Your task to perform on an android device: toggle location history Image 0: 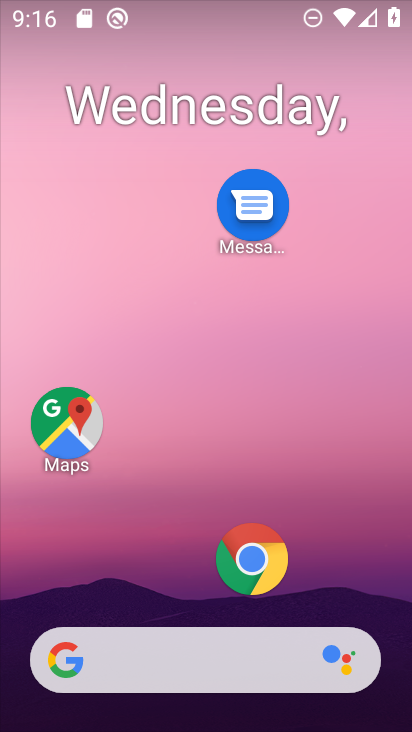
Step 0: drag from (163, 661) to (205, 180)
Your task to perform on an android device: toggle location history Image 1: 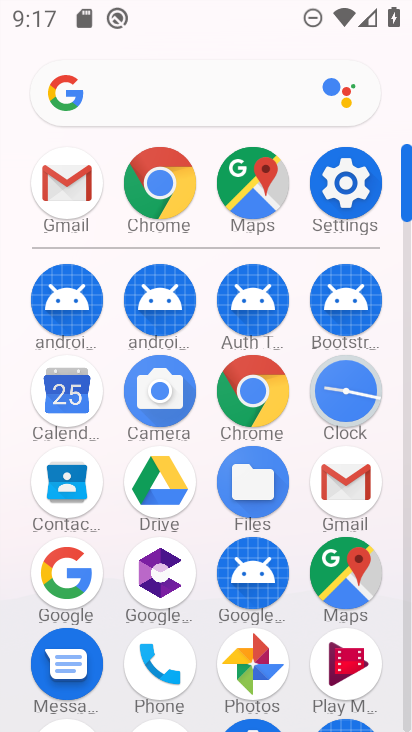
Step 1: click (355, 210)
Your task to perform on an android device: toggle location history Image 2: 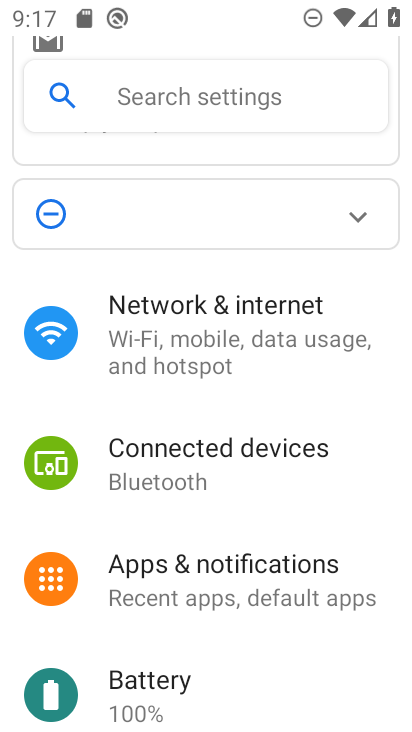
Step 2: drag from (217, 578) to (258, 185)
Your task to perform on an android device: toggle location history Image 3: 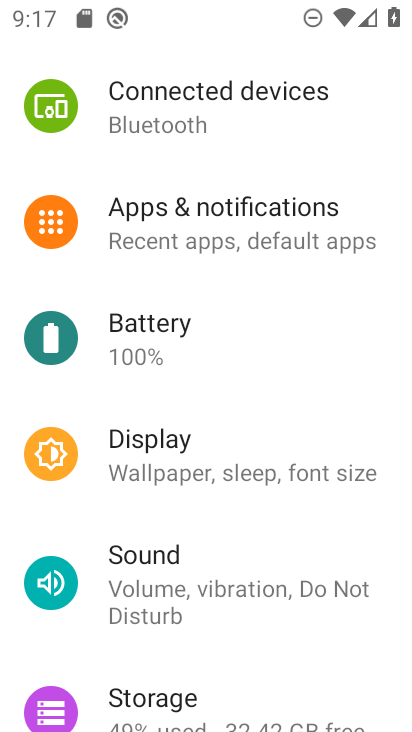
Step 3: drag from (248, 524) to (251, 145)
Your task to perform on an android device: toggle location history Image 4: 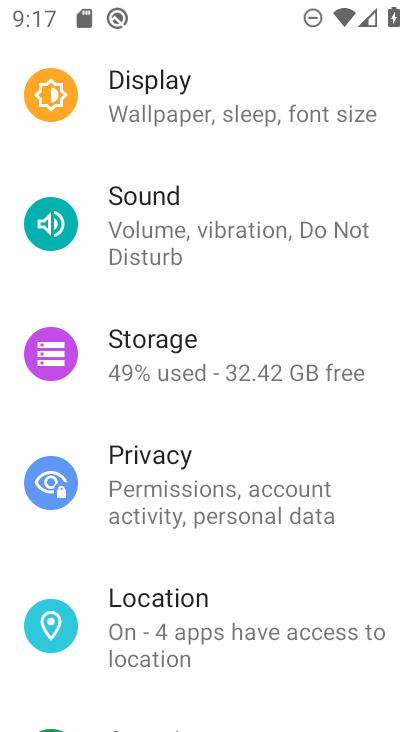
Step 4: click (247, 623)
Your task to perform on an android device: toggle location history Image 5: 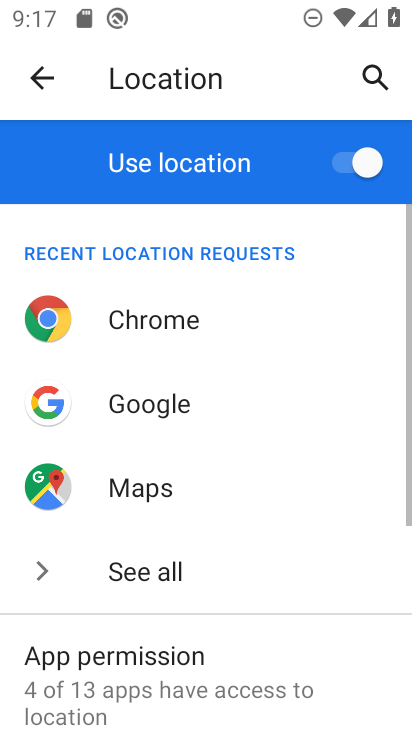
Step 5: drag from (252, 568) to (257, 174)
Your task to perform on an android device: toggle location history Image 6: 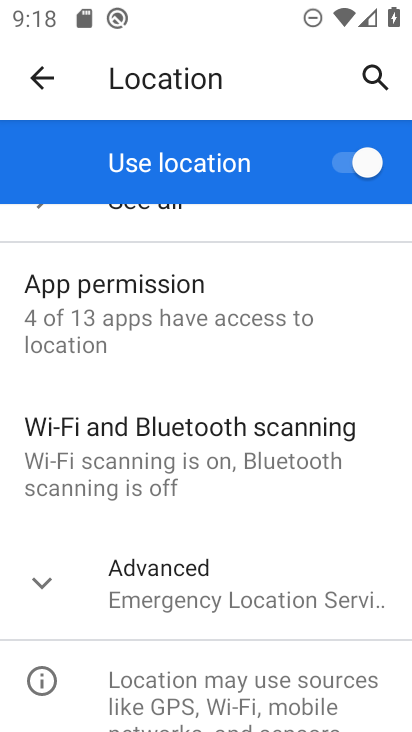
Step 6: click (226, 598)
Your task to perform on an android device: toggle location history Image 7: 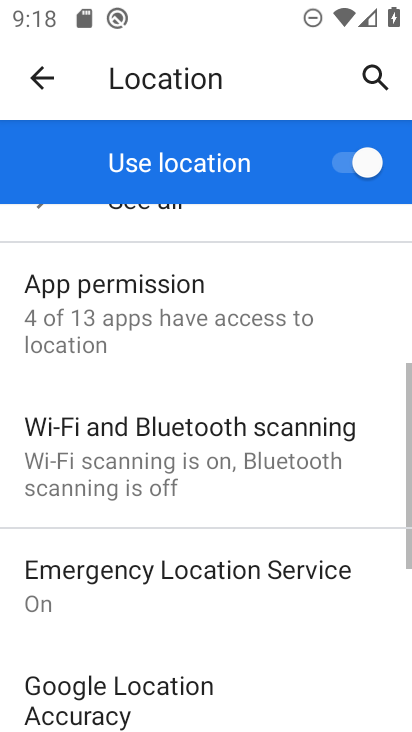
Step 7: drag from (227, 579) to (278, 202)
Your task to perform on an android device: toggle location history Image 8: 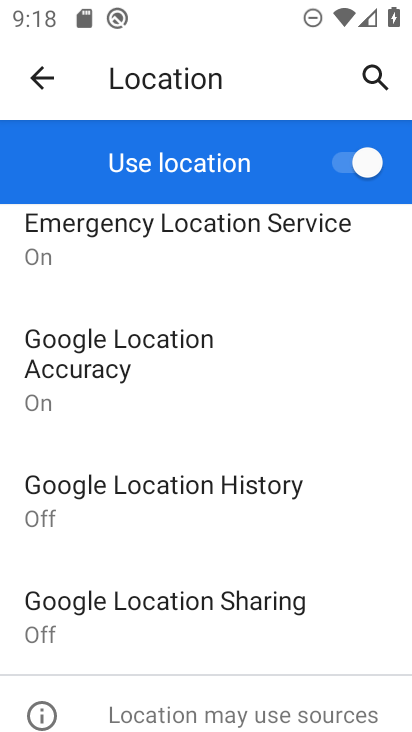
Step 8: click (267, 508)
Your task to perform on an android device: toggle location history Image 9: 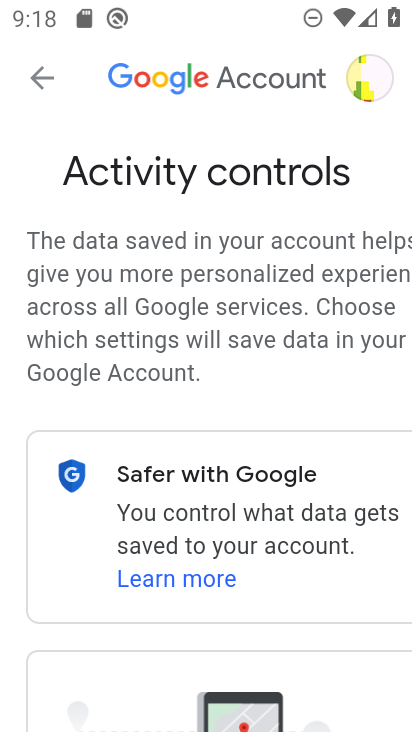
Step 9: drag from (296, 579) to (172, 125)
Your task to perform on an android device: toggle location history Image 10: 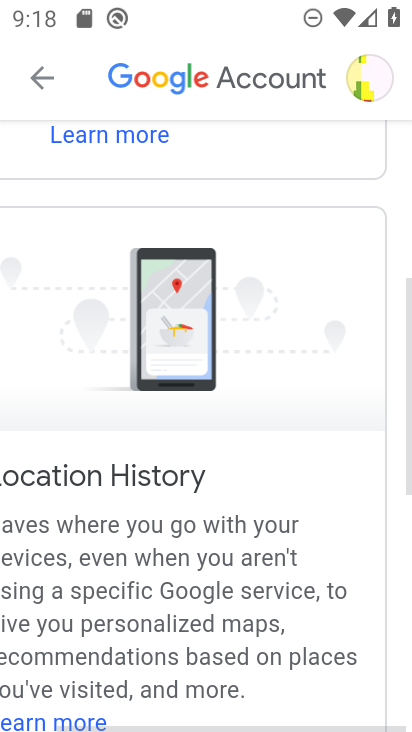
Step 10: drag from (251, 578) to (234, 60)
Your task to perform on an android device: toggle location history Image 11: 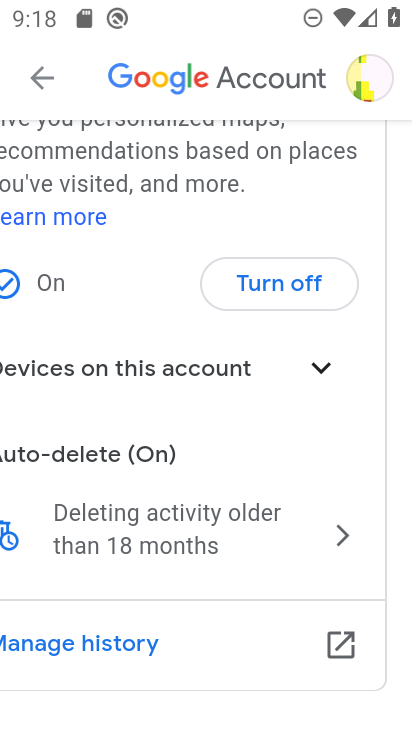
Step 11: drag from (180, 541) to (223, 422)
Your task to perform on an android device: toggle location history Image 12: 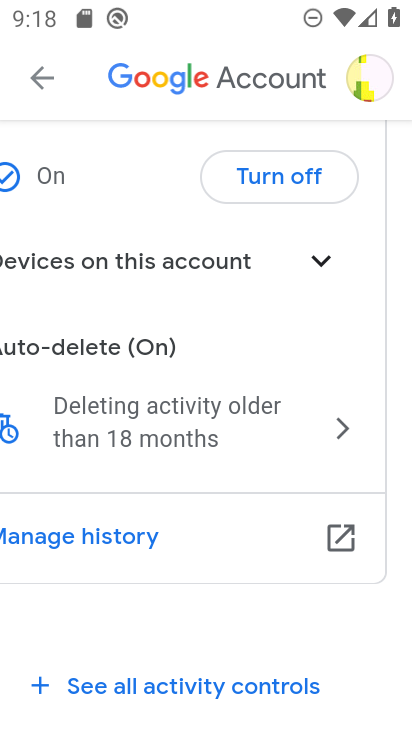
Step 12: click (259, 414)
Your task to perform on an android device: toggle location history Image 13: 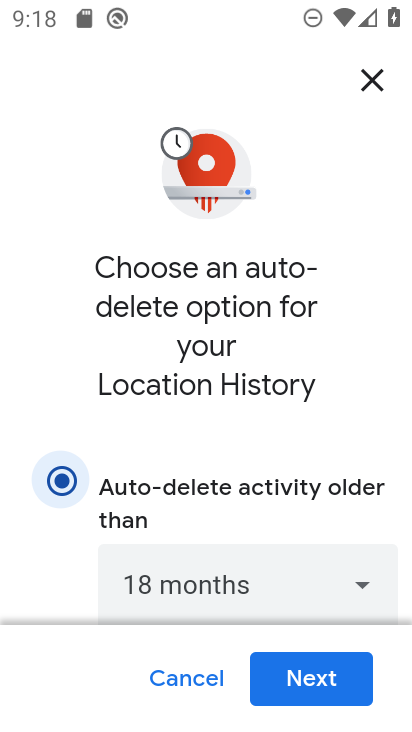
Step 13: click (330, 686)
Your task to perform on an android device: toggle location history Image 14: 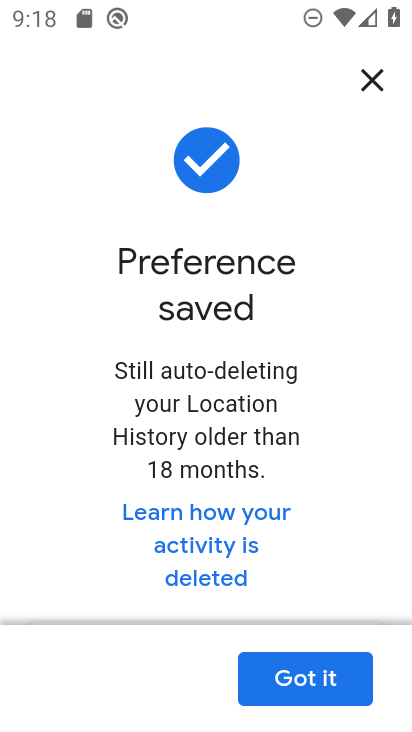
Step 14: click (306, 690)
Your task to perform on an android device: toggle location history Image 15: 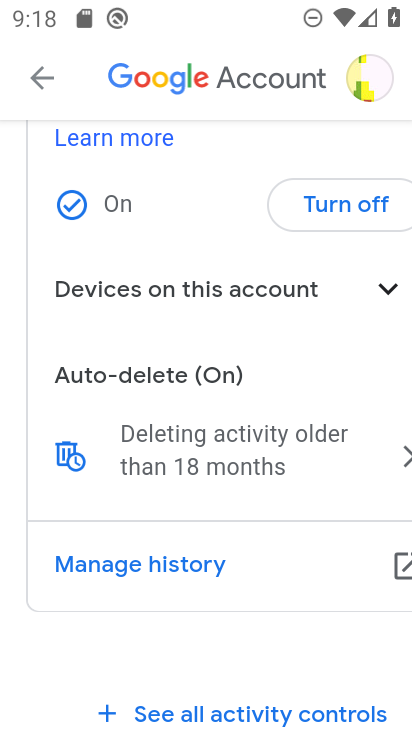
Step 15: task complete